Your task to perform on an android device: turn off picture-in-picture Image 0: 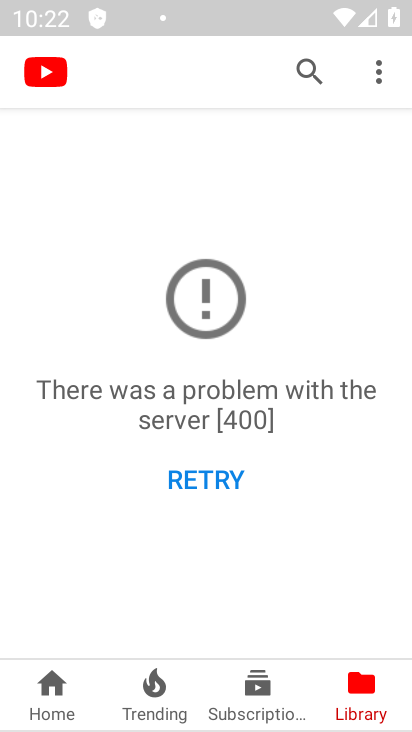
Step 0: press home button
Your task to perform on an android device: turn off picture-in-picture Image 1: 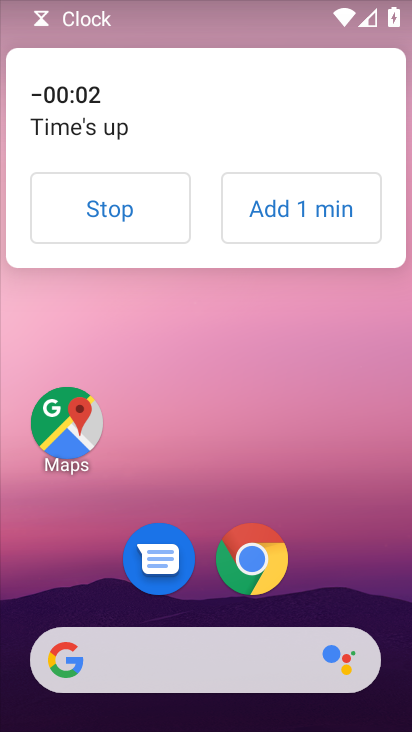
Step 1: click (139, 209)
Your task to perform on an android device: turn off picture-in-picture Image 2: 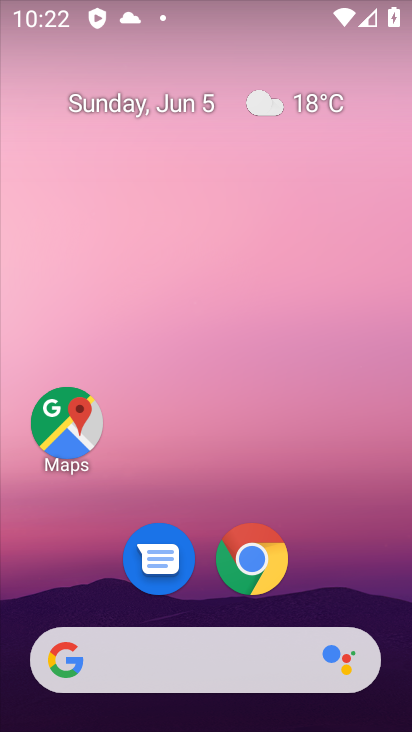
Step 2: click (245, 550)
Your task to perform on an android device: turn off picture-in-picture Image 3: 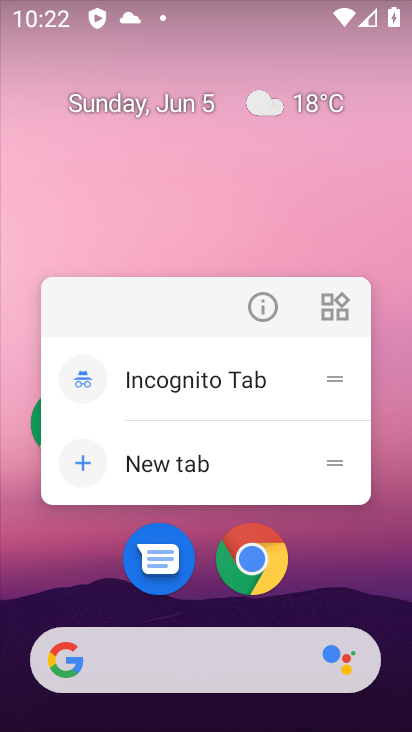
Step 3: click (261, 309)
Your task to perform on an android device: turn off picture-in-picture Image 4: 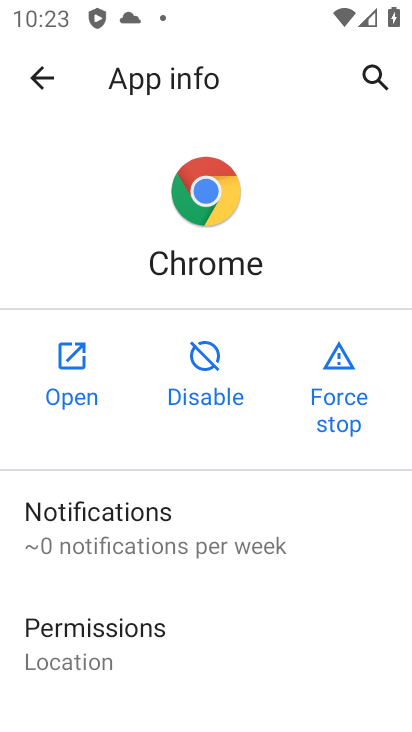
Step 4: drag from (207, 614) to (197, 170)
Your task to perform on an android device: turn off picture-in-picture Image 5: 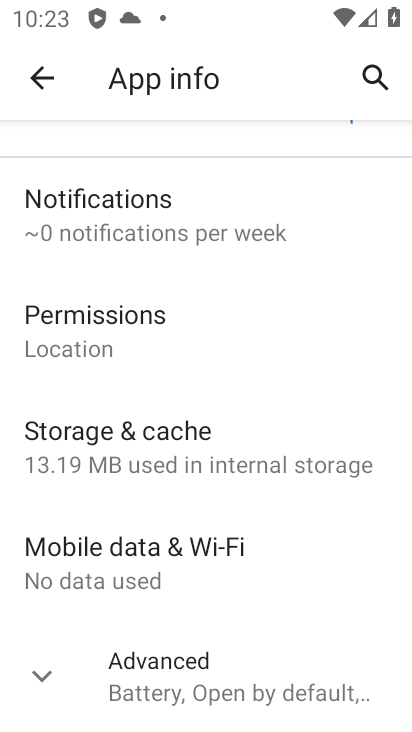
Step 5: click (118, 658)
Your task to perform on an android device: turn off picture-in-picture Image 6: 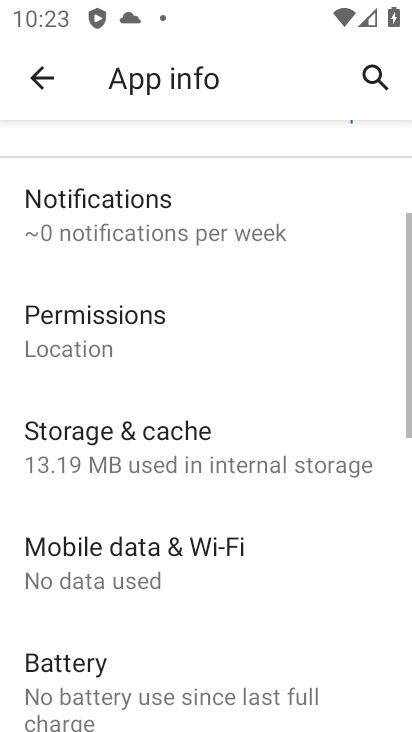
Step 6: drag from (256, 677) to (264, 251)
Your task to perform on an android device: turn off picture-in-picture Image 7: 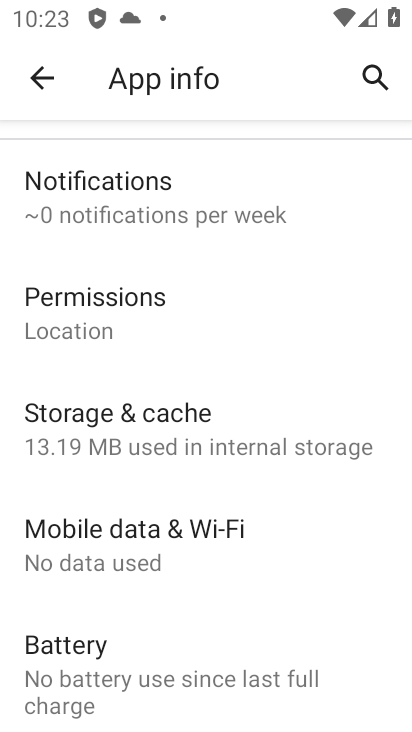
Step 7: drag from (223, 606) to (216, 251)
Your task to perform on an android device: turn off picture-in-picture Image 8: 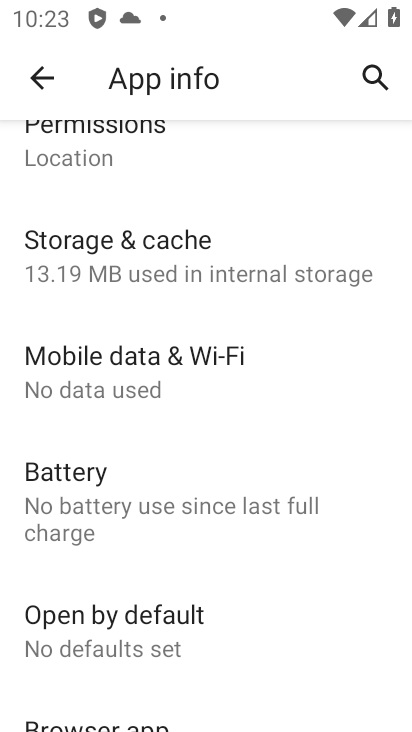
Step 8: drag from (264, 652) to (254, 143)
Your task to perform on an android device: turn off picture-in-picture Image 9: 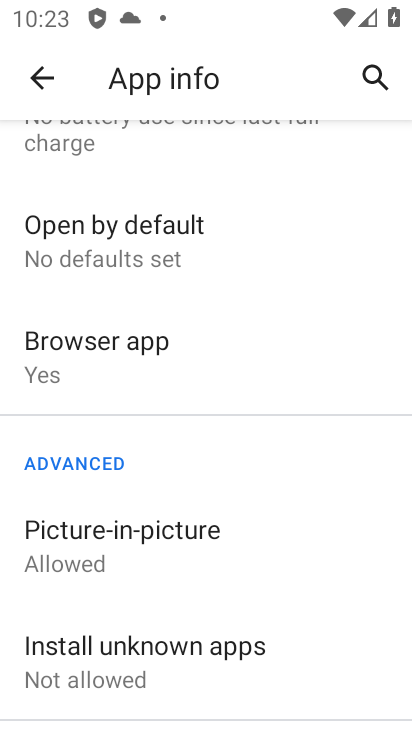
Step 9: click (101, 528)
Your task to perform on an android device: turn off picture-in-picture Image 10: 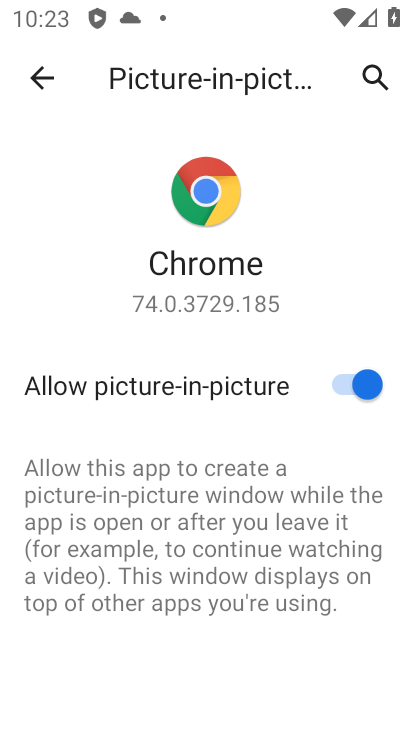
Step 10: click (343, 376)
Your task to perform on an android device: turn off picture-in-picture Image 11: 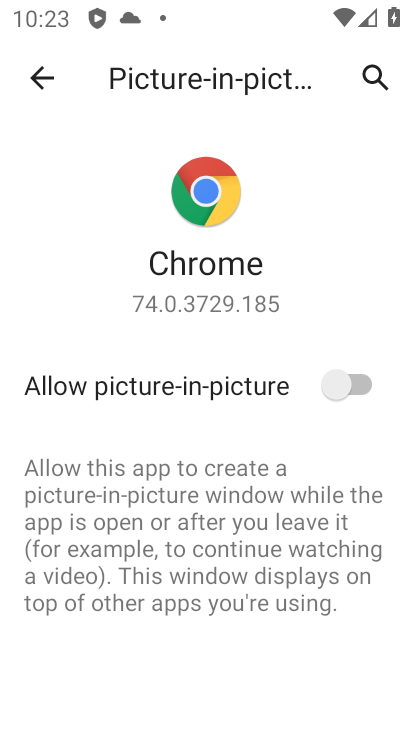
Step 11: task complete